Your task to perform on an android device: uninstall "Viber Messenger" Image 0: 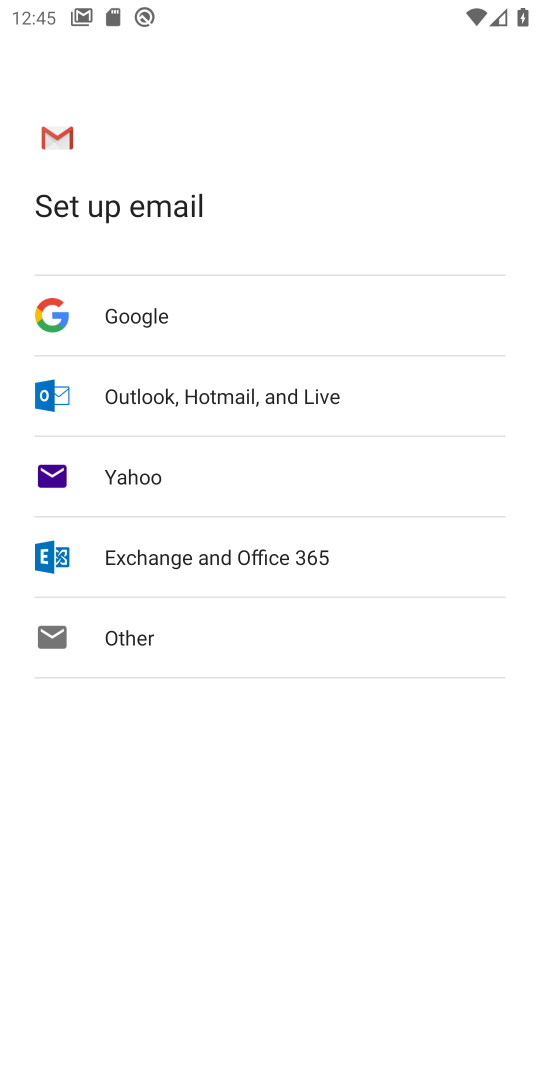
Step 0: press home button
Your task to perform on an android device: uninstall "Viber Messenger" Image 1: 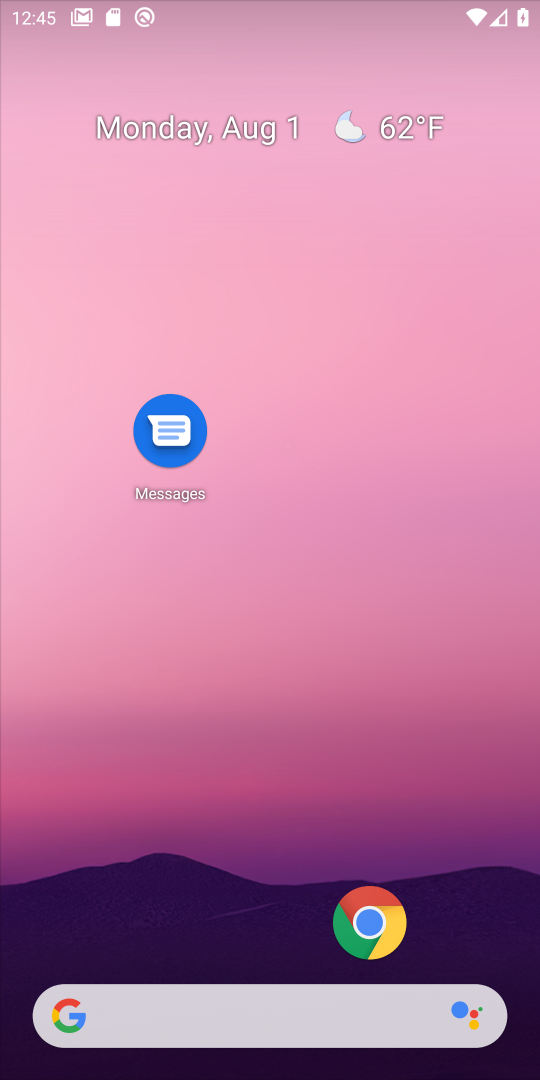
Step 1: drag from (283, 837) to (329, 341)
Your task to perform on an android device: uninstall "Viber Messenger" Image 2: 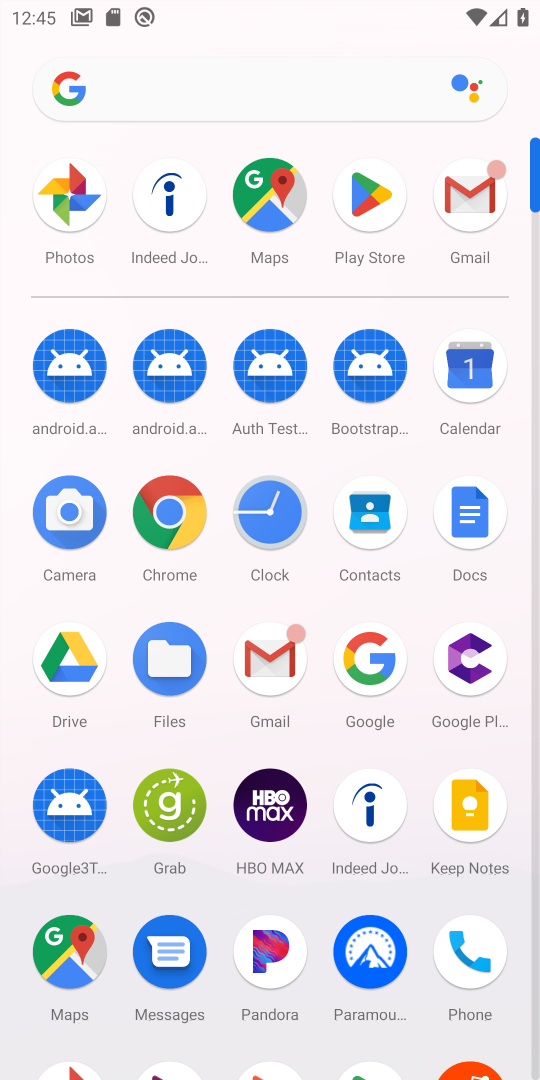
Step 2: click (367, 241)
Your task to perform on an android device: uninstall "Viber Messenger" Image 3: 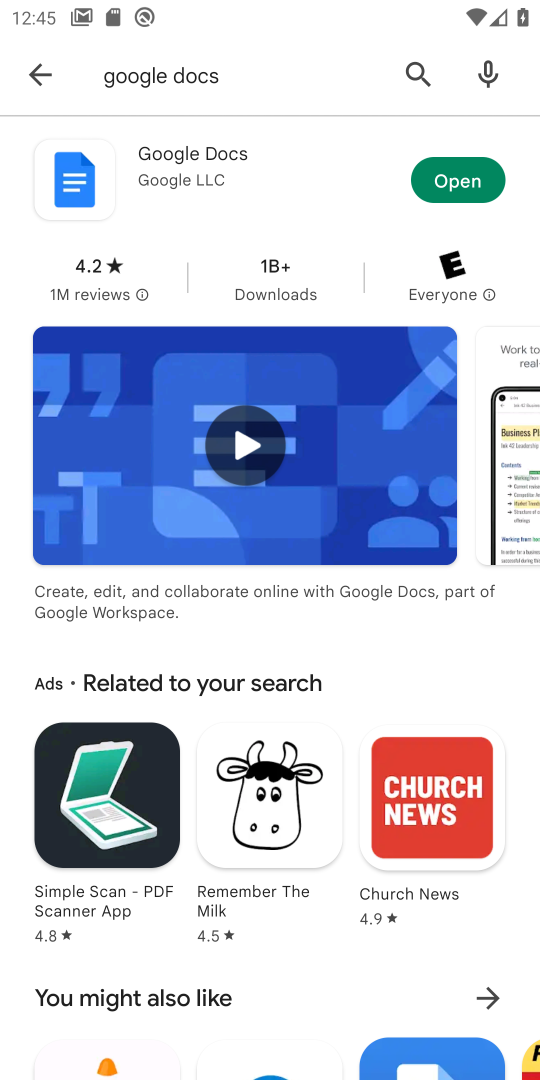
Step 3: click (417, 85)
Your task to perform on an android device: uninstall "Viber Messenger" Image 4: 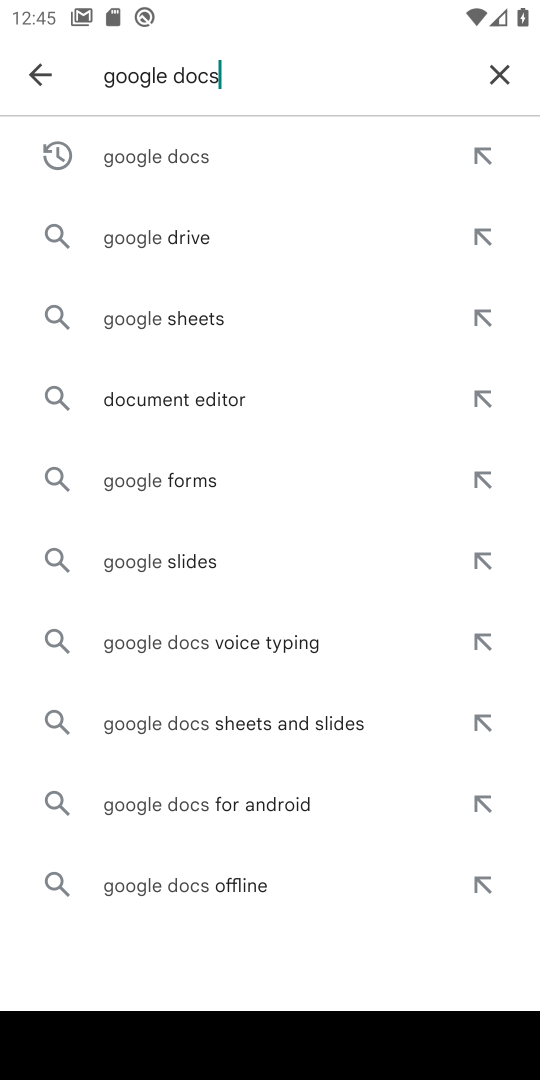
Step 4: click (491, 61)
Your task to perform on an android device: uninstall "Viber Messenger" Image 5: 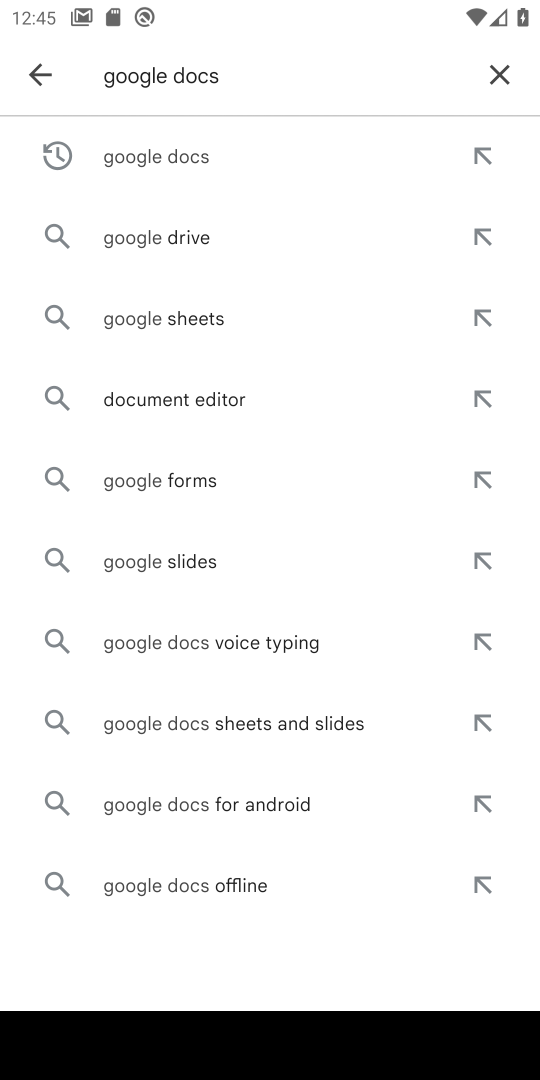
Step 5: click (503, 71)
Your task to perform on an android device: uninstall "Viber Messenger" Image 6: 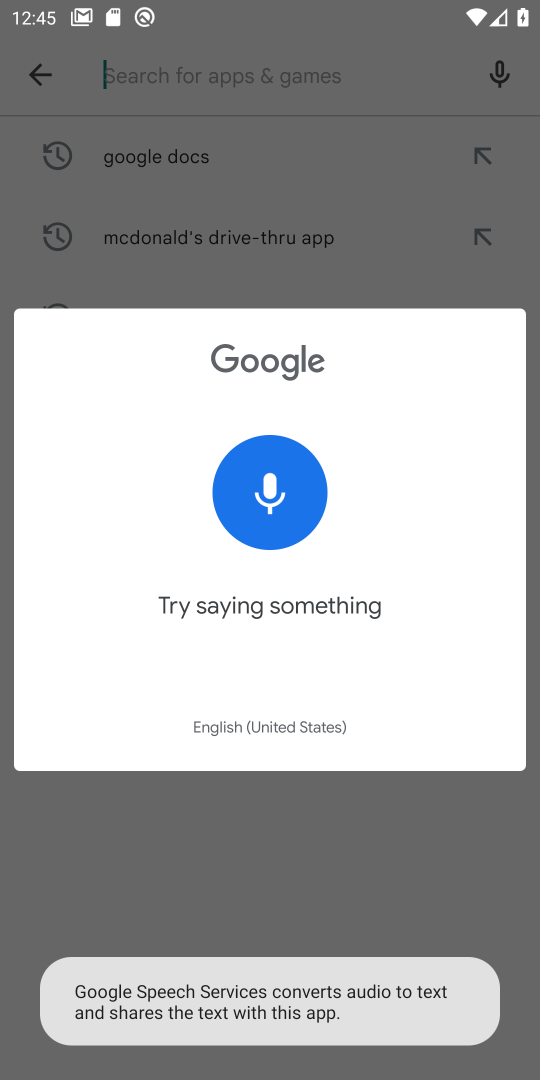
Step 6: click (231, 94)
Your task to perform on an android device: uninstall "Viber Messenger" Image 7: 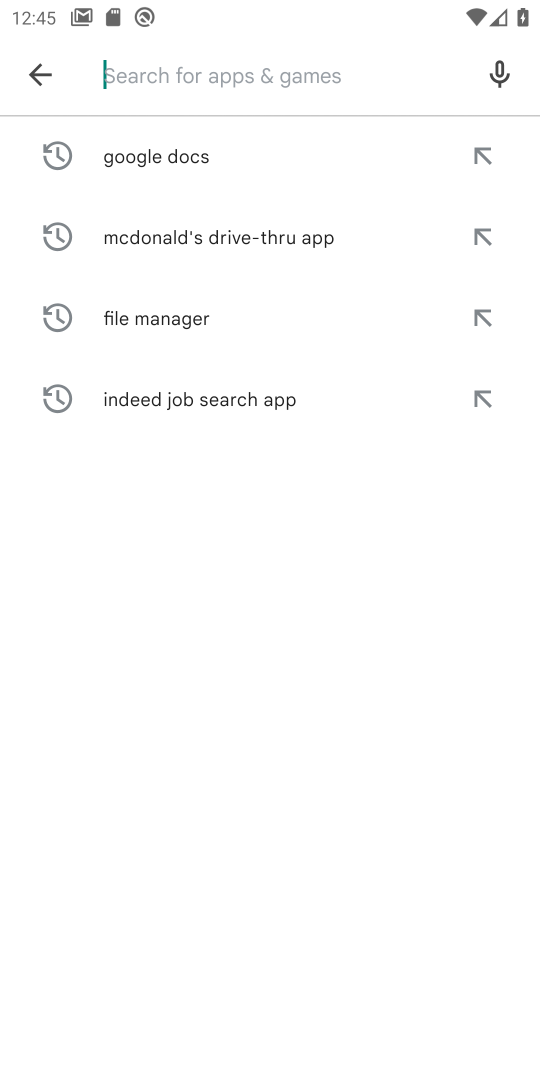
Step 7: type "Viber Messenger"
Your task to perform on an android device: uninstall "Viber Messenger" Image 8: 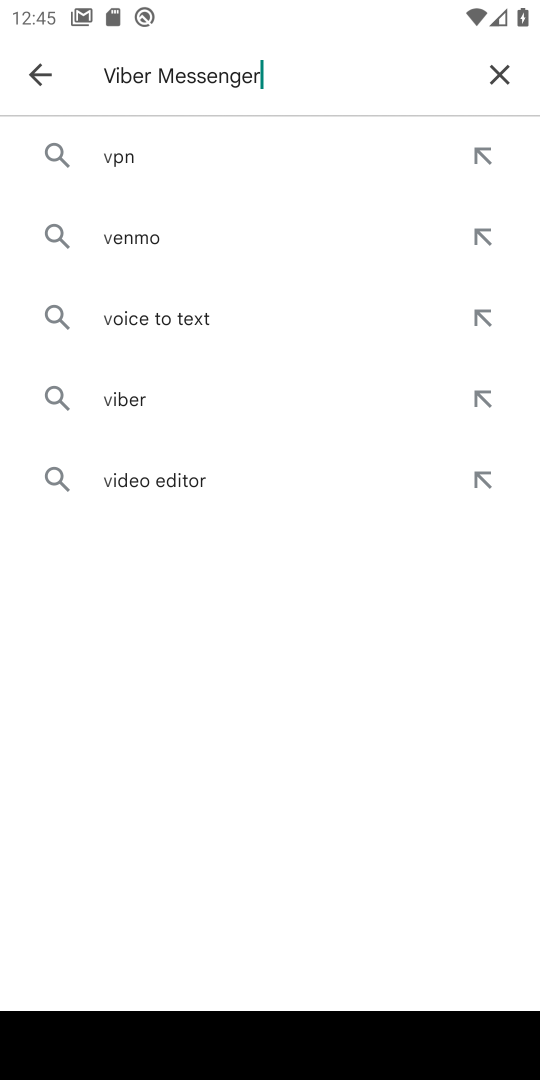
Step 8: type ""
Your task to perform on an android device: uninstall "Viber Messenger" Image 9: 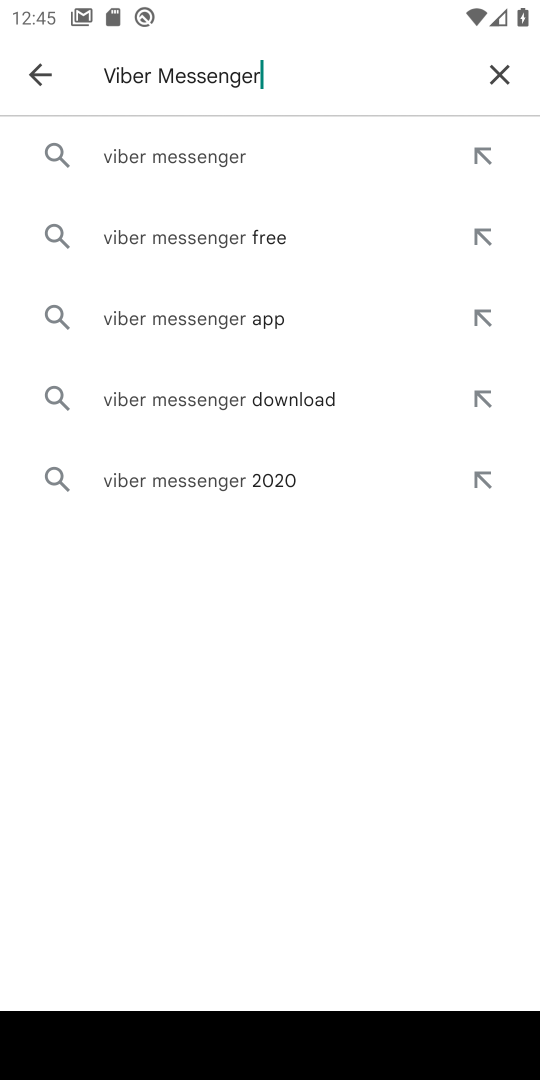
Step 9: click (241, 164)
Your task to perform on an android device: uninstall "Viber Messenger" Image 10: 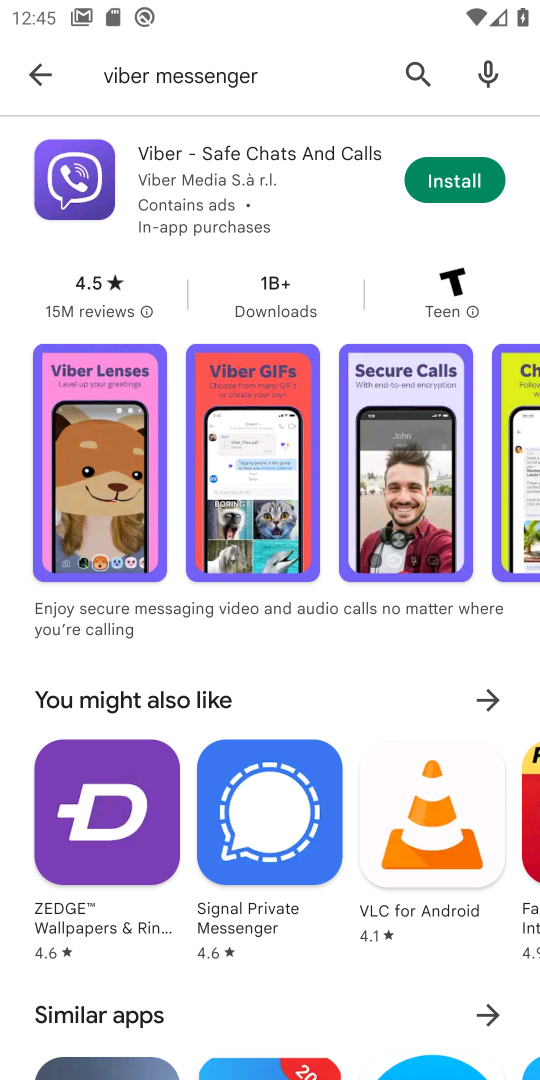
Step 10: task complete